Your task to perform on an android device: Open Chrome and go to the settings page Image 0: 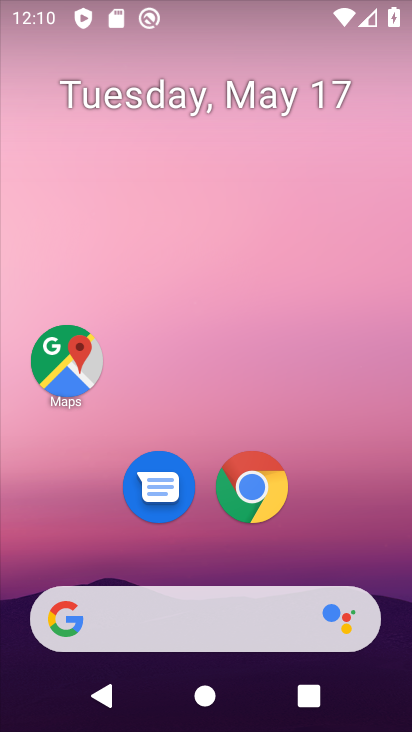
Step 0: drag from (340, 512) to (246, 7)
Your task to perform on an android device: Open Chrome and go to the settings page Image 1: 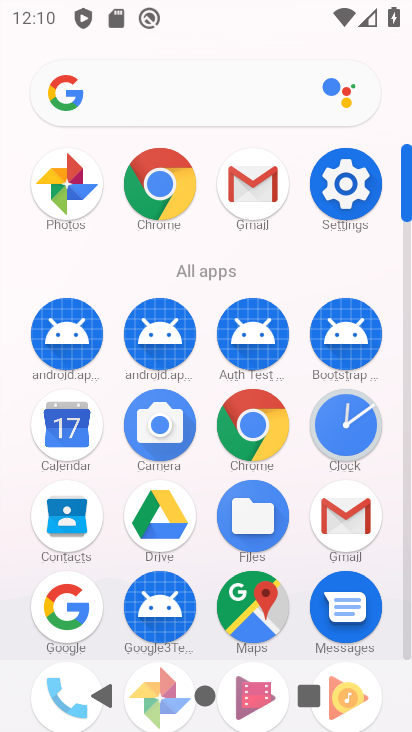
Step 1: click (157, 181)
Your task to perform on an android device: Open Chrome and go to the settings page Image 2: 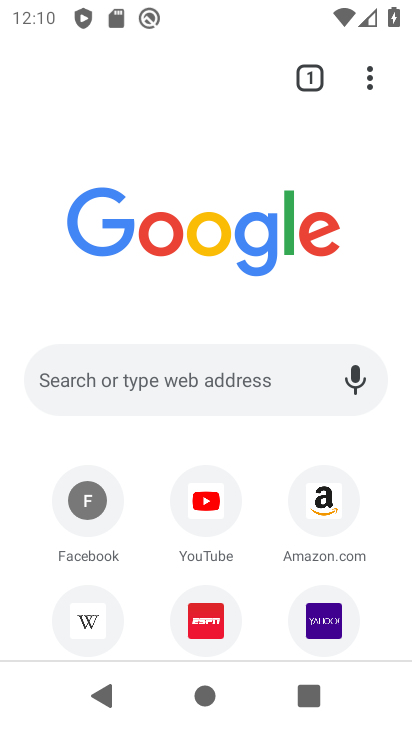
Step 2: task complete